Your task to perform on an android device: delete a single message in the gmail app Image 0: 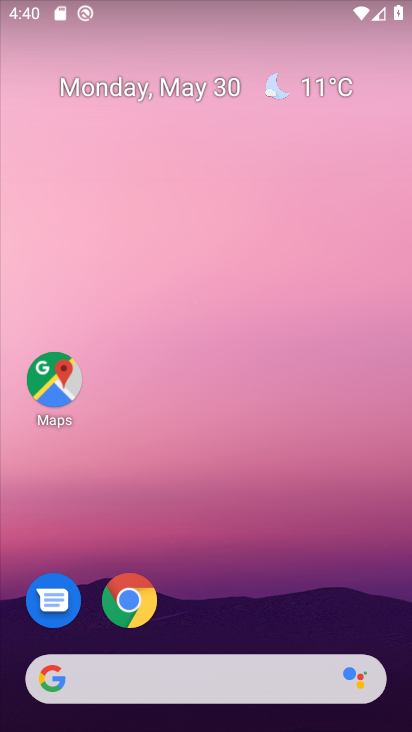
Step 0: drag from (324, 591) to (348, 10)
Your task to perform on an android device: delete a single message in the gmail app Image 1: 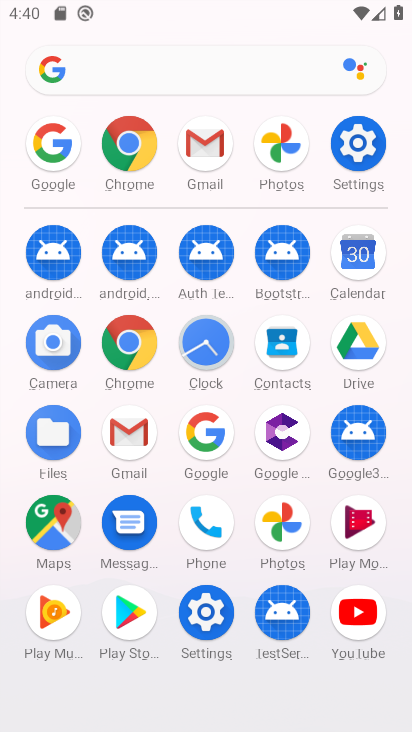
Step 1: click (210, 156)
Your task to perform on an android device: delete a single message in the gmail app Image 2: 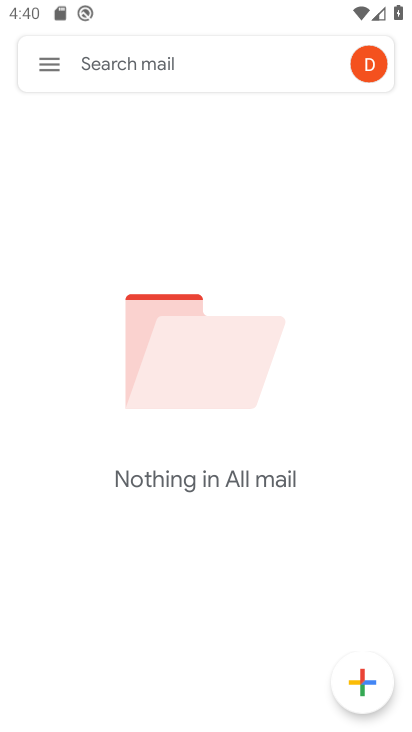
Step 2: click (49, 80)
Your task to perform on an android device: delete a single message in the gmail app Image 3: 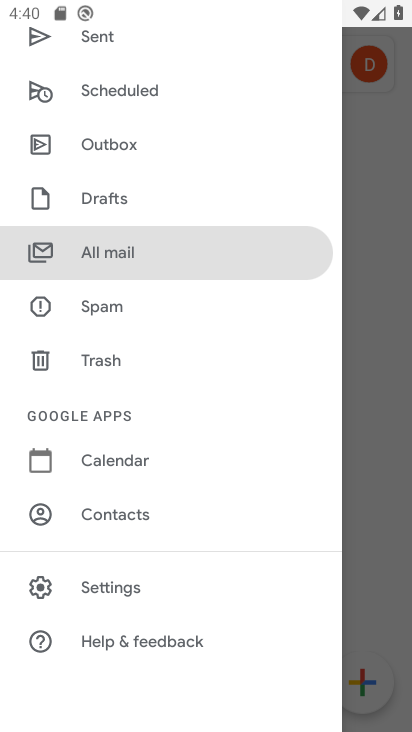
Step 3: drag from (109, 609) to (164, 211)
Your task to perform on an android device: delete a single message in the gmail app Image 4: 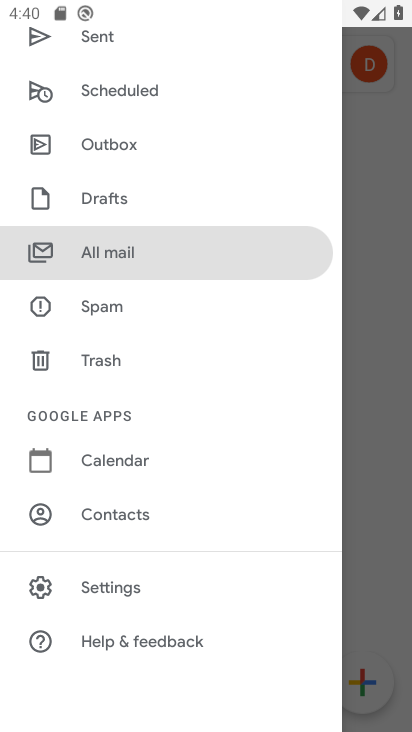
Step 4: drag from (111, 590) to (154, 223)
Your task to perform on an android device: delete a single message in the gmail app Image 5: 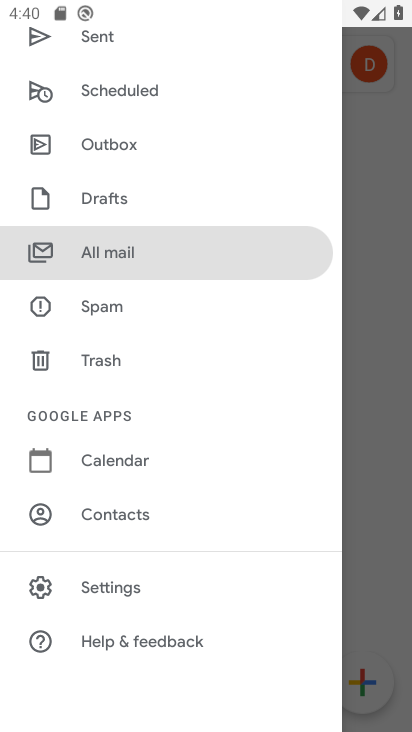
Step 5: click (110, 604)
Your task to perform on an android device: delete a single message in the gmail app Image 6: 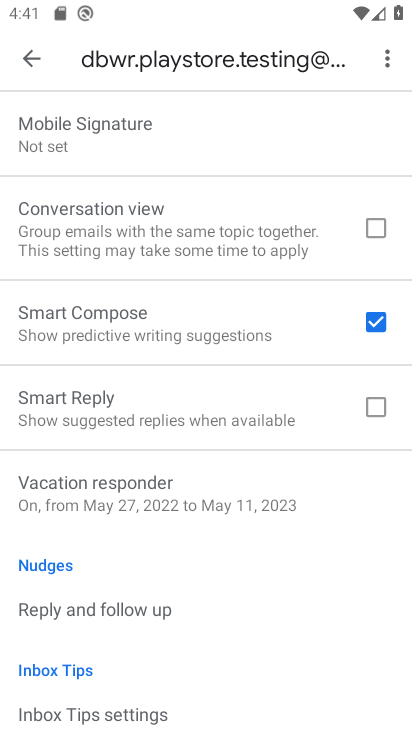
Step 6: drag from (136, 696) to (145, 207)
Your task to perform on an android device: delete a single message in the gmail app Image 7: 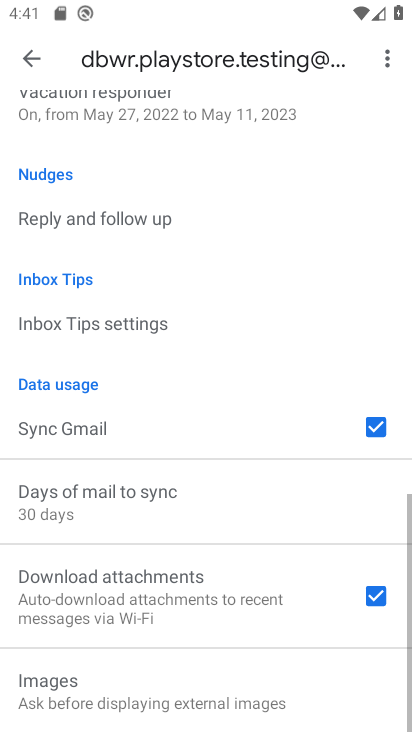
Step 7: drag from (173, 449) to (213, 717)
Your task to perform on an android device: delete a single message in the gmail app Image 8: 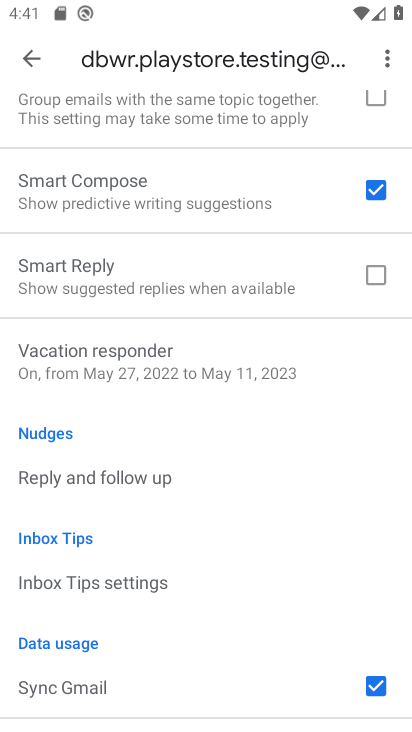
Step 8: click (37, 54)
Your task to perform on an android device: delete a single message in the gmail app Image 9: 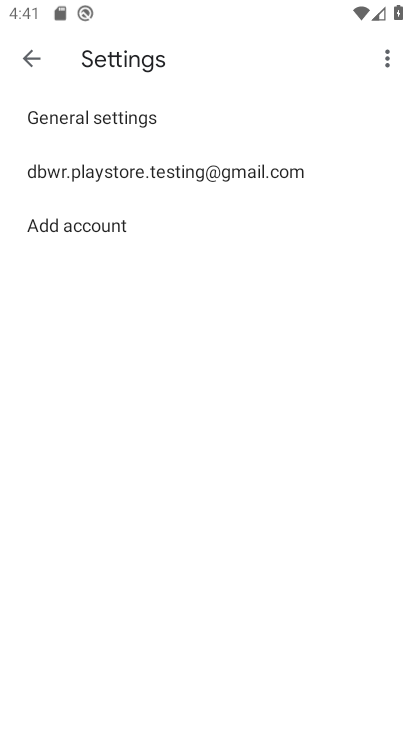
Step 9: click (38, 54)
Your task to perform on an android device: delete a single message in the gmail app Image 10: 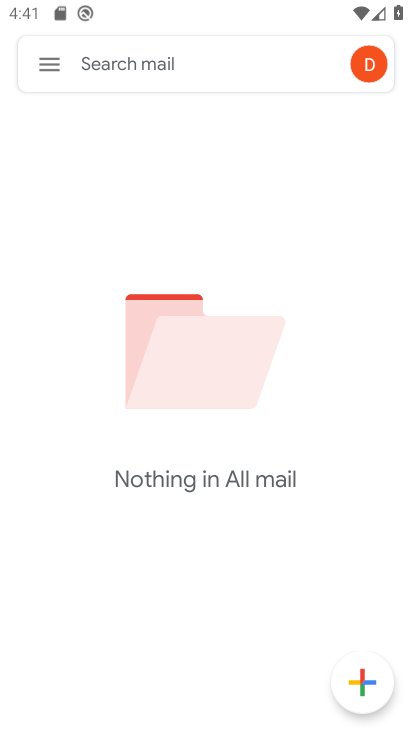
Step 10: task complete